Your task to perform on an android device: delete the emails in spam in the gmail app Image 0: 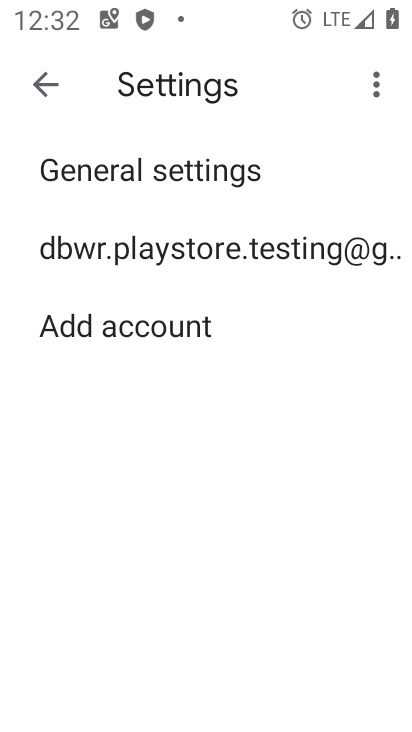
Step 0: press home button
Your task to perform on an android device: delete the emails in spam in the gmail app Image 1: 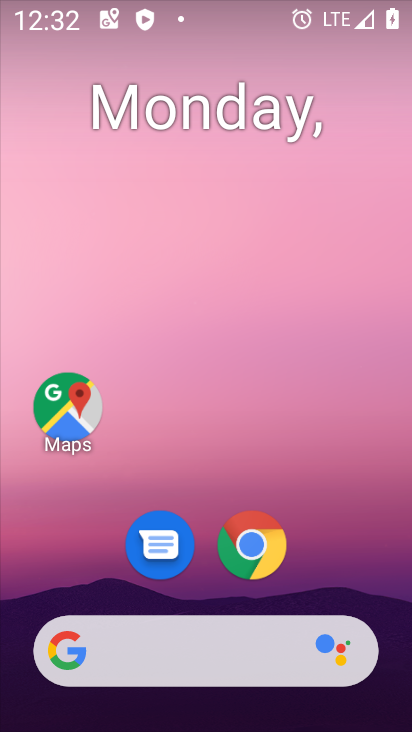
Step 1: drag from (371, 587) to (378, 319)
Your task to perform on an android device: delete the emails in spam in the gmail app Image 2: 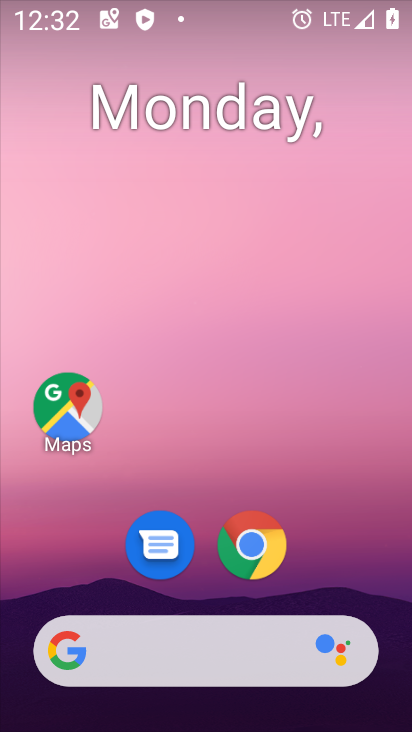
Step 2: drag from (380, 580) to (364, 364)
Your task to perform on an android device: delete the emails in spam in the gmail app Image 3: 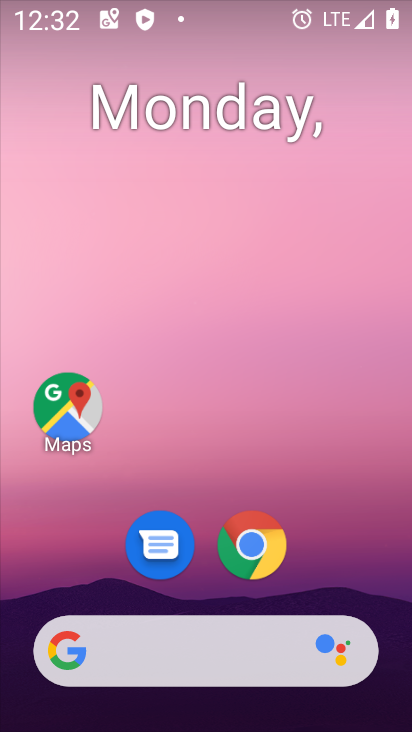
Step 3: drag from (367, 598) to (373, 302)
Your task to perform on an android device: delete the emails in spam in the gmail app Image 4: 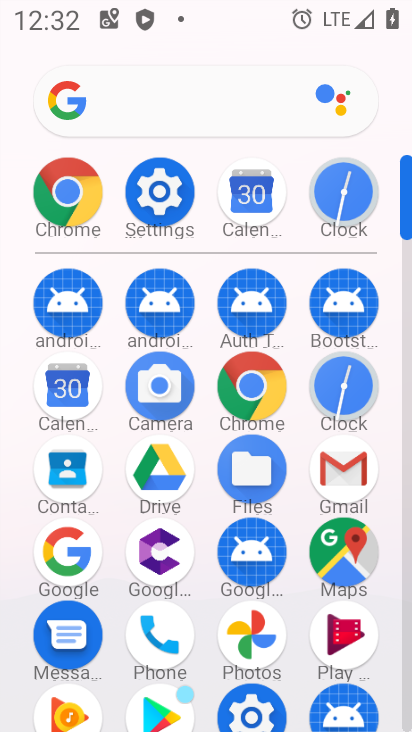
Step 4: click (353, 465)
Your task to perform on an android device: delete the emails in spam in the gmail app Image 5: 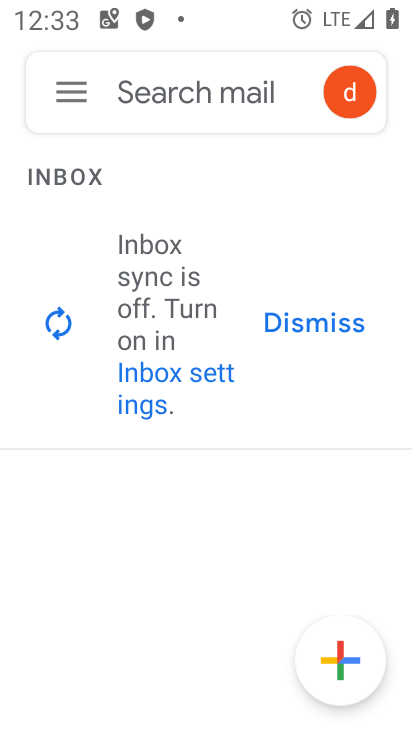
Step 5: click (75, 92)
Your task to perform on an android device: delete the emails in spam in the gmail app Image 6: 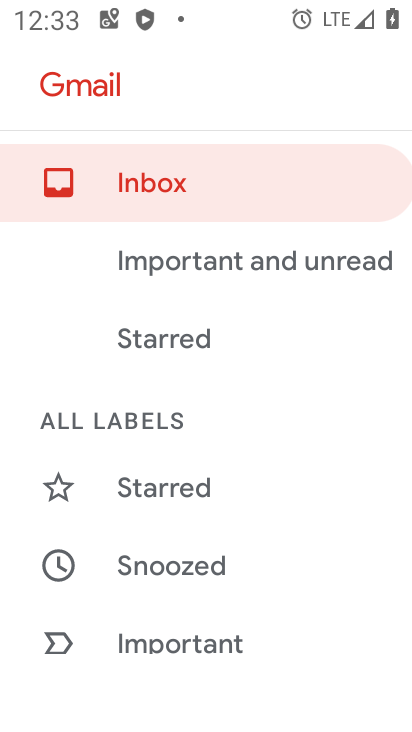
Step 6: drag from (297, 448) to (295, 300)
Your task to perform on an android device: delete the emails in spam in the gmail app Image 7: 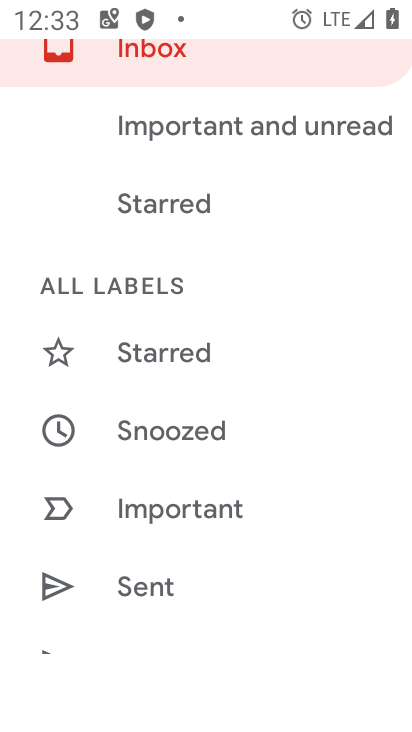
Step 7: drag from (324, 584) to (303, 436)
Your task to perform on an android device: delete the emails in spam in the gmail app Image 8: 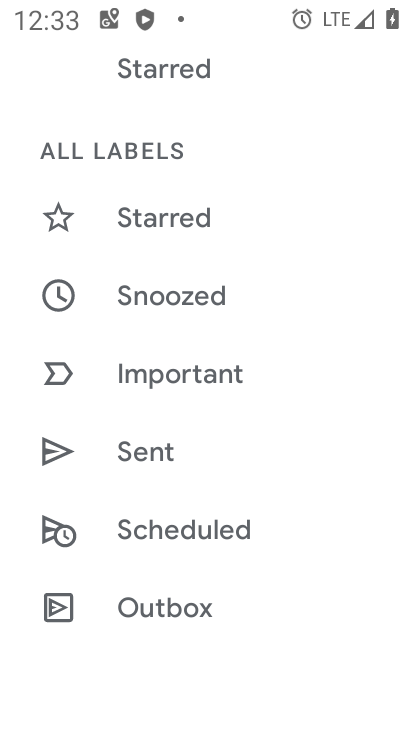
Step 8: drag from (322, 596) to (310, 400)
Your task to perform on an android device: delete the emails in spam in the gmail app Image 9: 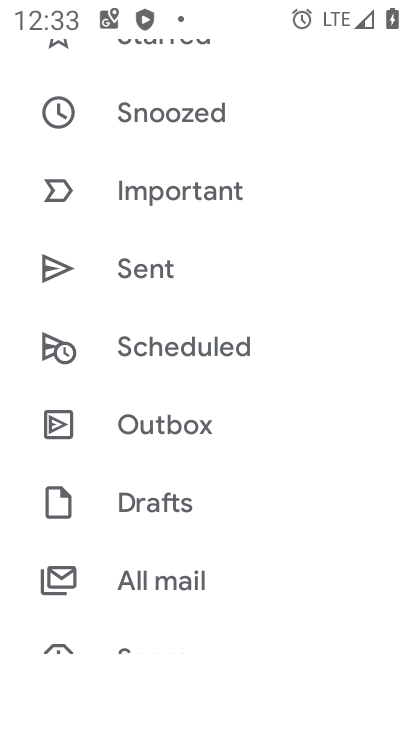
Step 9: drag from (308, 576) to (311, 303)
Your task to perform on an android device: delete the emails in spam in the gmail app Image 10: 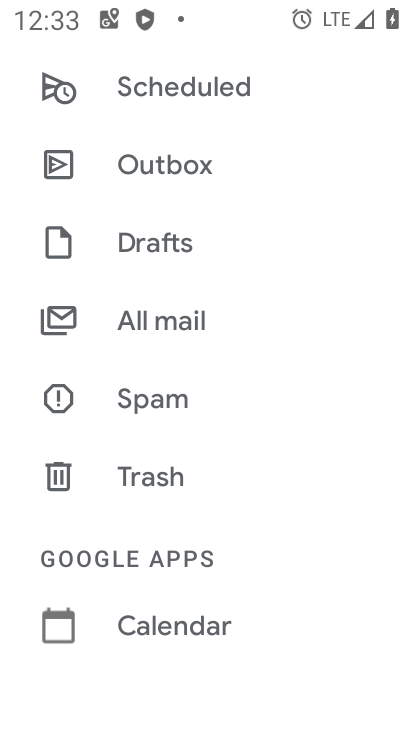
Step 10: drag from (303, 567) to (304, 367)
Your task to perform on an android device: delete the emails in spam in the gmail app Image 11: 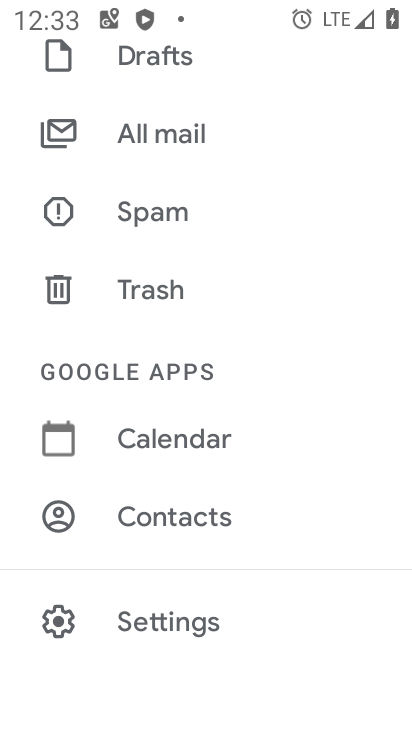
Step 11: drag from (303, 233) to (306, 447)
Your task to perform on an android device: delete the emails in spam in the gmail app Image 12: 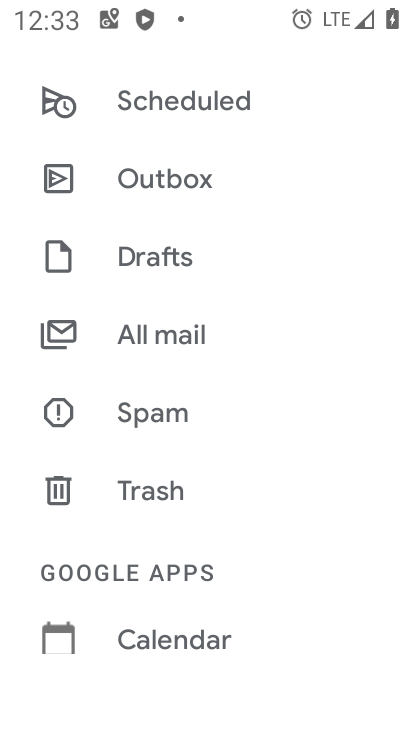
Step 12: drag from (315, 188) to (311, 338)
Your task to perform on an android device: delete the emails in spam in the gmail app Image 13: 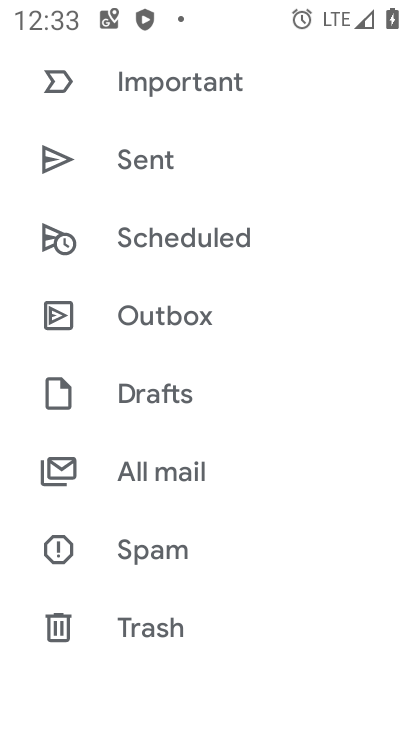
Step 13: drag from (305, 162) to (308, 385)
Your task to perform on an android device: delete the emails in spam in the gmail app Image 14: 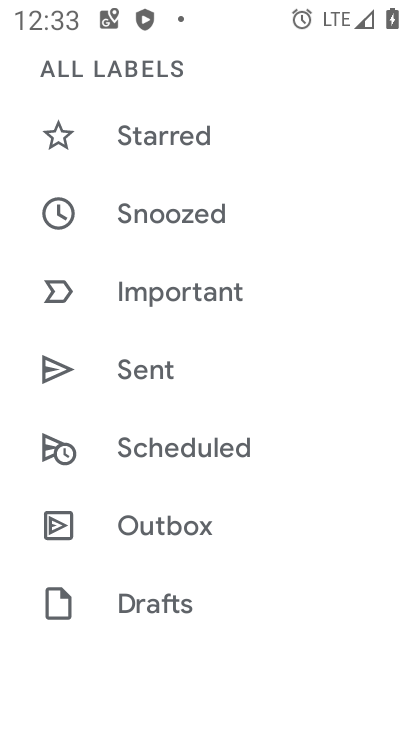
Step 14: drag from (320, 176) to (315, 397)
Your task to perform on an android device: delete the emails in spam in the gmail app Image 15: 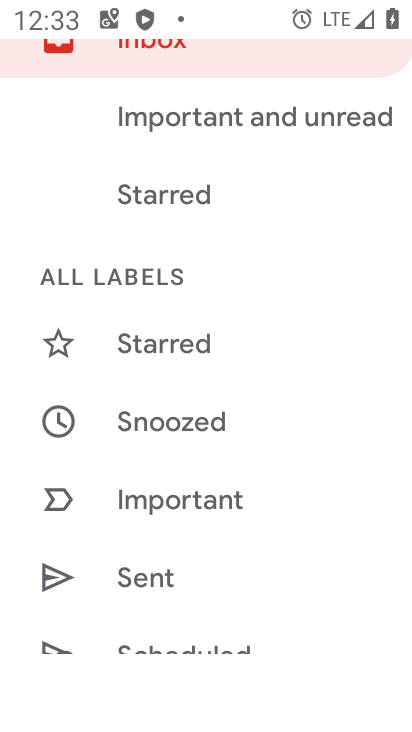
Step 15: drag from (287, 189) to (301, 323)
Your task to perform on an android device: delete the emails in spam in the gmail app Image 16: 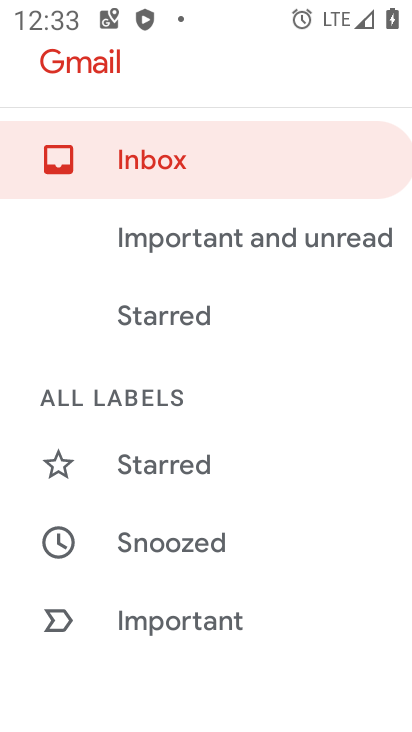
Step 16: click (215, 147)
Your task to perform on an android device: delete the emails in spam in the gmail app Image 17: 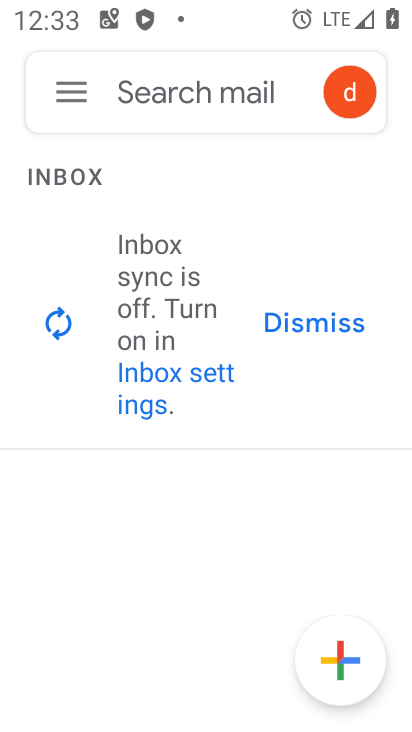
Step 17: task complete